Your task to perform on an android device: Show me productivity apps on the Play Store Image 0: 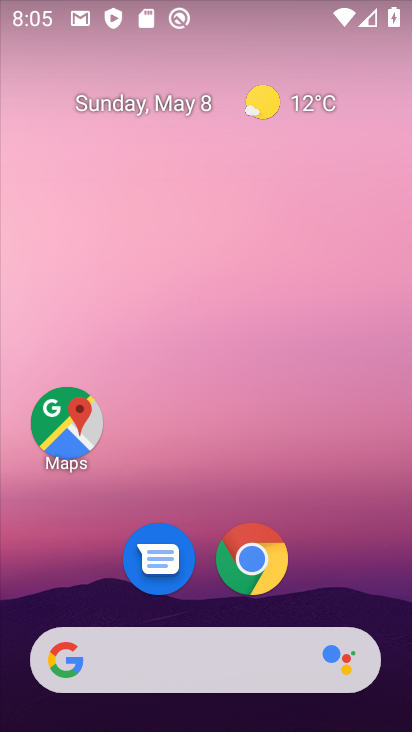
Step 0: drag from (374, 610) to (373, 7)
Your task to perform on an android device: Show me productivity apps on the Play Store Image 1: 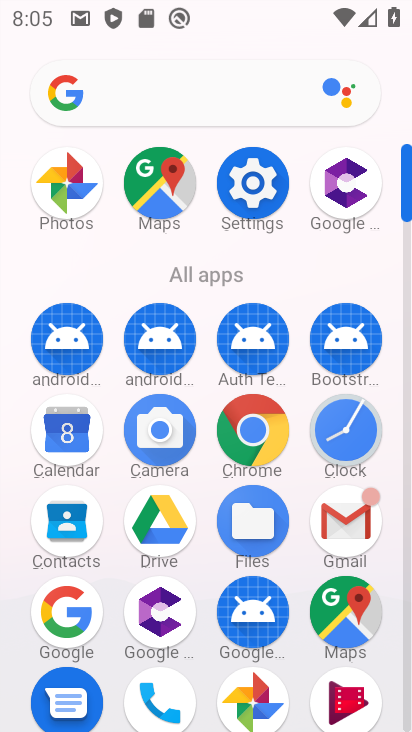
Step 1: drag from (411, 551) to (409, 513)
Your task to perform on an android device: Show me productivity apps on the Play Store Image 2: 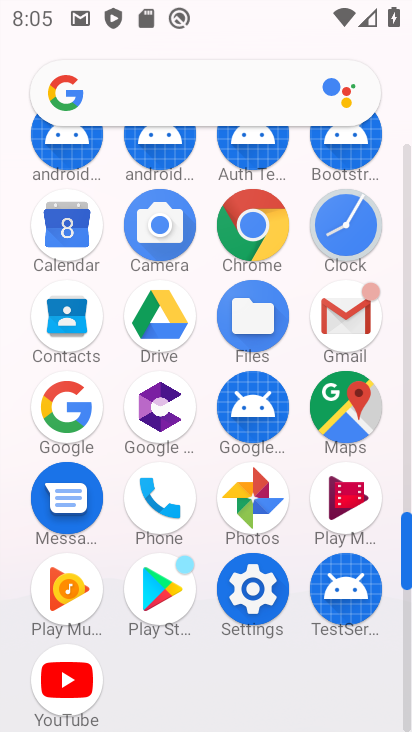
Step 2: click (165, 593)
Your task to perform on an android device: Show me productivity apps on the Play Store Image 3: 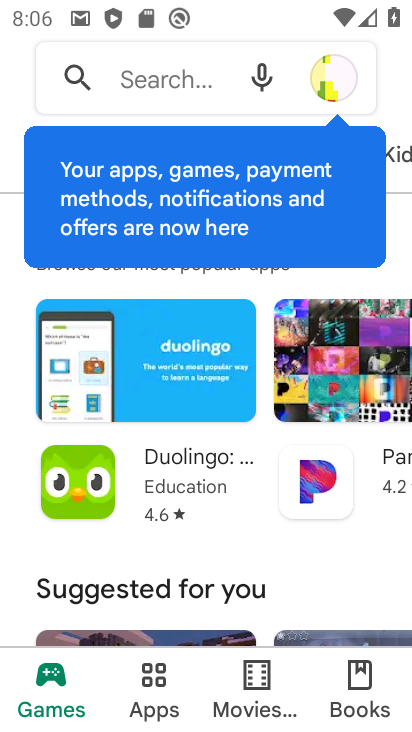
Step 3: click (156, 699)
Your task to perform on an android device: Show me productivity apps on the Play Store Image 4: 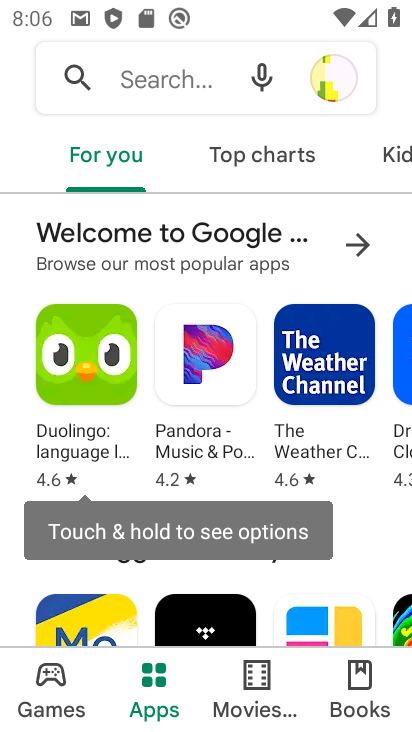
Step 4: drag from (389, 165) to (4, 205)
Your task to perform on an android device: Show me productivity apps on the Play Store Image 5: 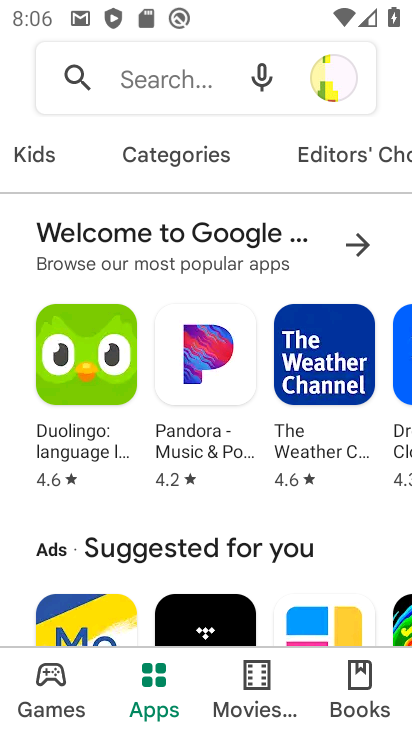
Step 5: click (186, 164)
Your task to perform on an android device: Show me productivity apps on the Play Store Image 6: 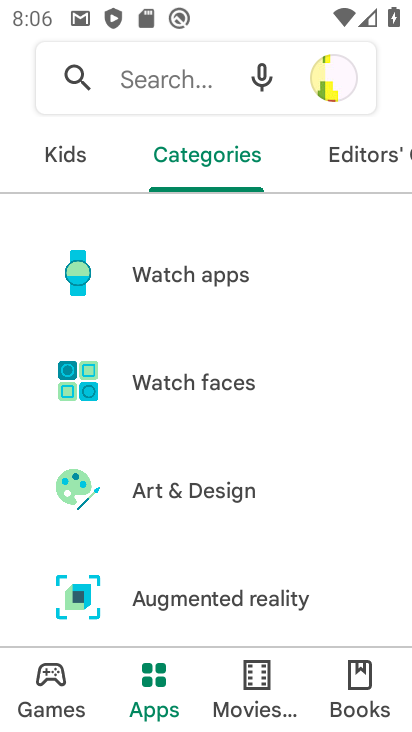
Step 6: drag from (324, 577) to (294, 171)
Your task to perform on an android device: Show me productivity apps on the Play Store Image 7: 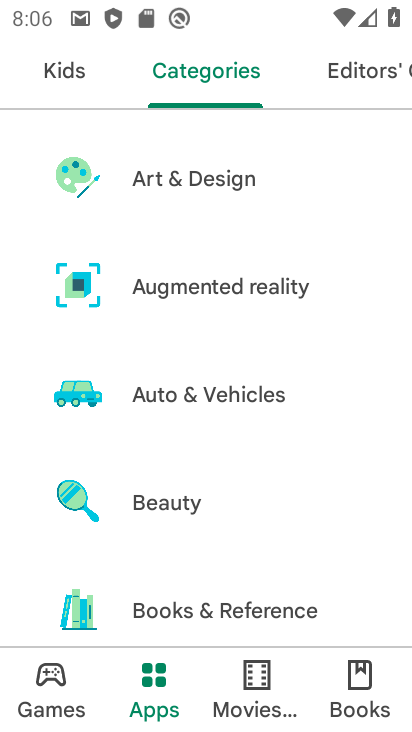
Step 7: drag from (300, 557) to (288, 128)
Your task to perform on an android device: Show me productivity apps on the Play Store Image 8: 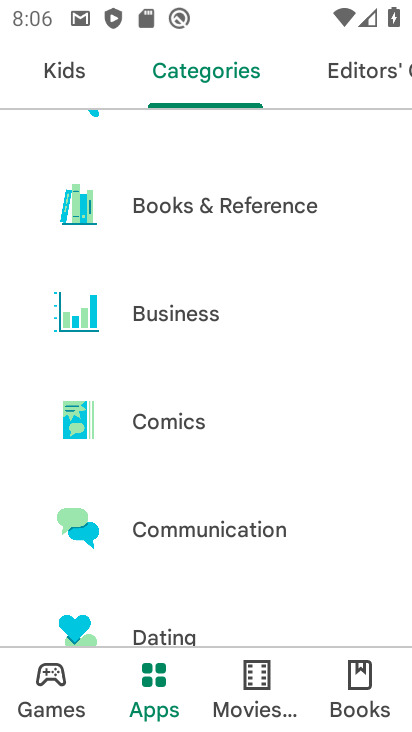
Step 8: drag from (298, 510) to (279, 120)
Your task to perform on an android device: Show me productivity apps on the Play Store Image 9: 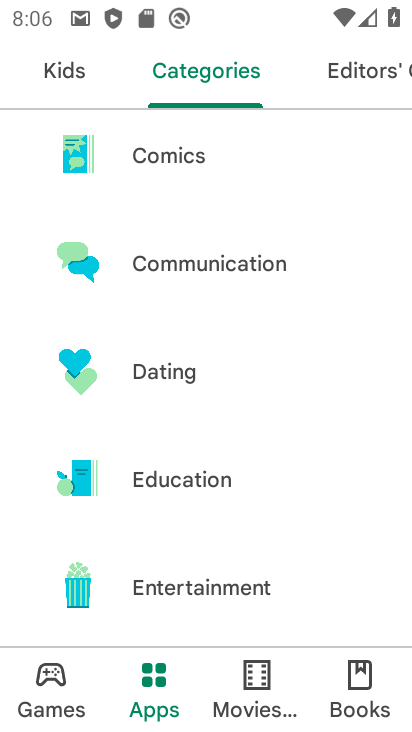
Step 9: drag from (247, 470) to (262, 90)
Your task to perform on an android device: Show me productivity apps on the Play Store Image 10: 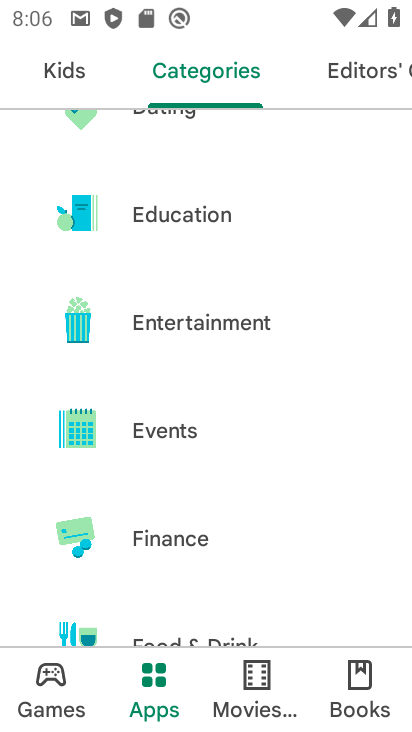
Step 10: drag from (227, 513) to (209, 88)
Your task to perform on an android device: Show me productivity apps on the Play Store Image 11: 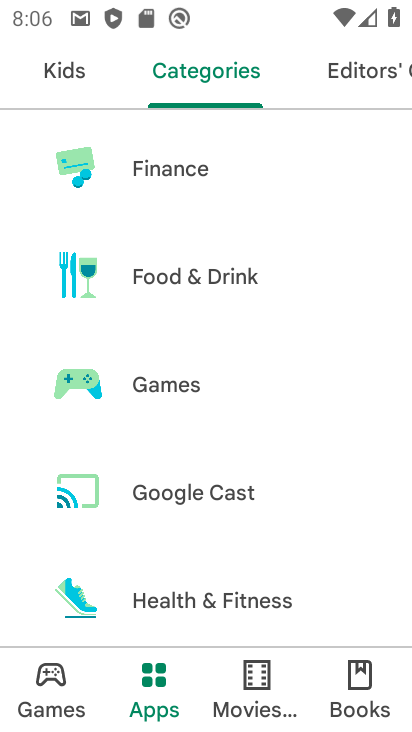
Step 11: drag from (220, 507) to (197, 109)
Your task to perform on an android device: Show me productivity apps on the Play Store Image 12: 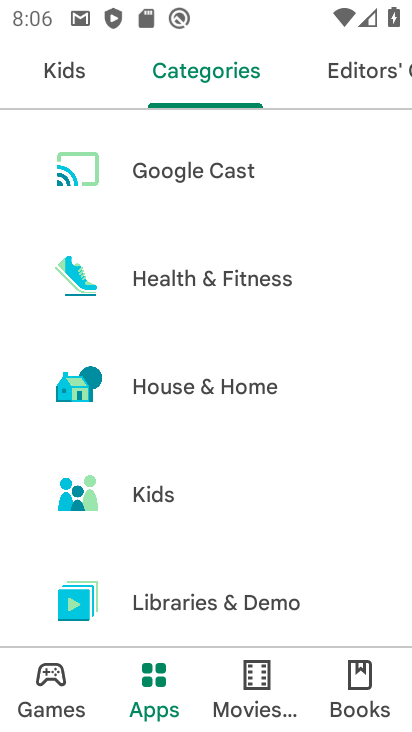
Step 12: drag from (162, 537) to (162, 146)
Your task to perform on an android device: Show me productivity apps on the Play Store Image 13: 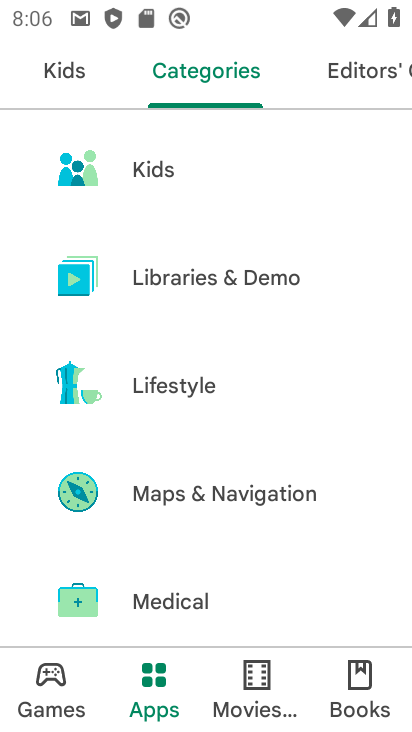
Step 13: drag from (210, 543) to (197, 128)
Your task to perform on an android device: Show me productivity apps on the Play Store Image 14: 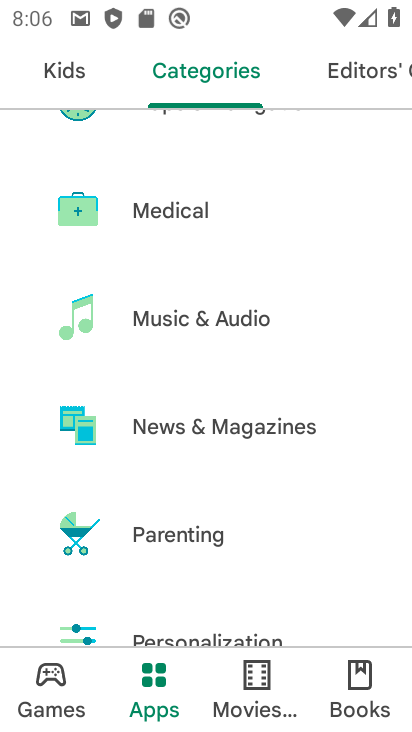
Step 14: drag from (233, 496) to (205, 113)
Your task to perform on an android device: Show me productivity apps on the Play Store Image 15: 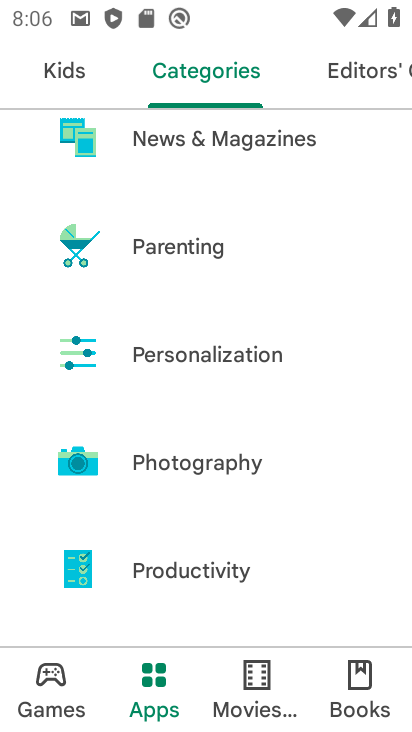
Step 15: click (195, 578)
Your task to perform on an android device: Show me productivity apps on the Play Store Image 16: 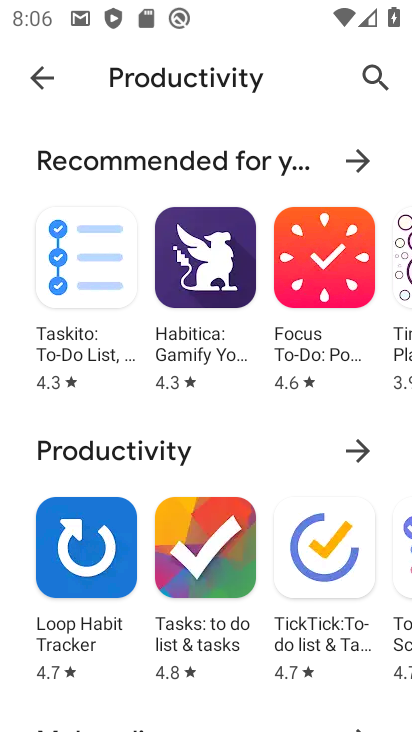
Step 16: task complete